Your task to perform on an android device: open app "Messages" (install if not already installed) and go to login screen Image 0: 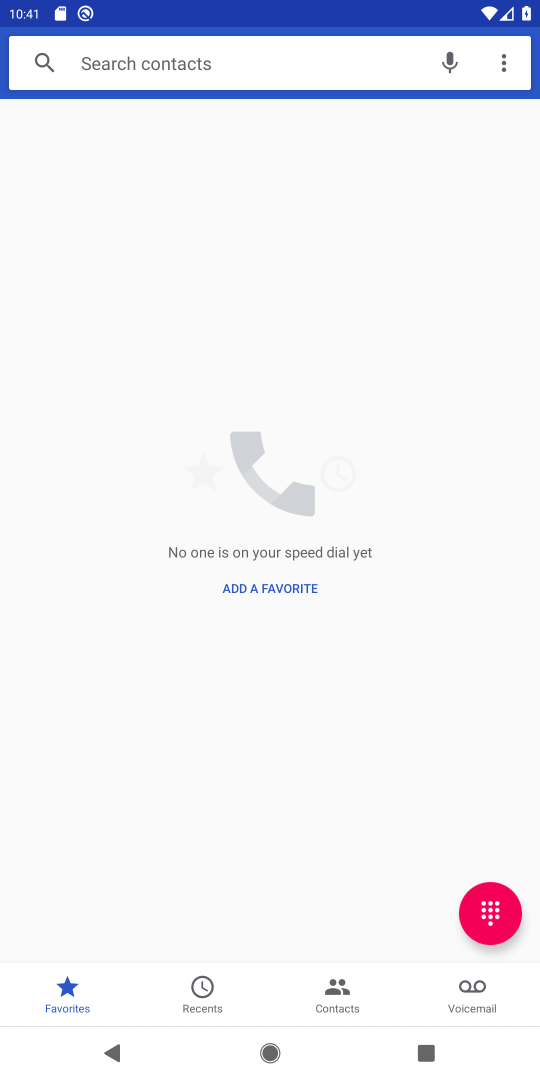
Step 0: press home button
Your task to perform on an android device: open app "Messages" (install if not already installed) and go to login screen Image 1: 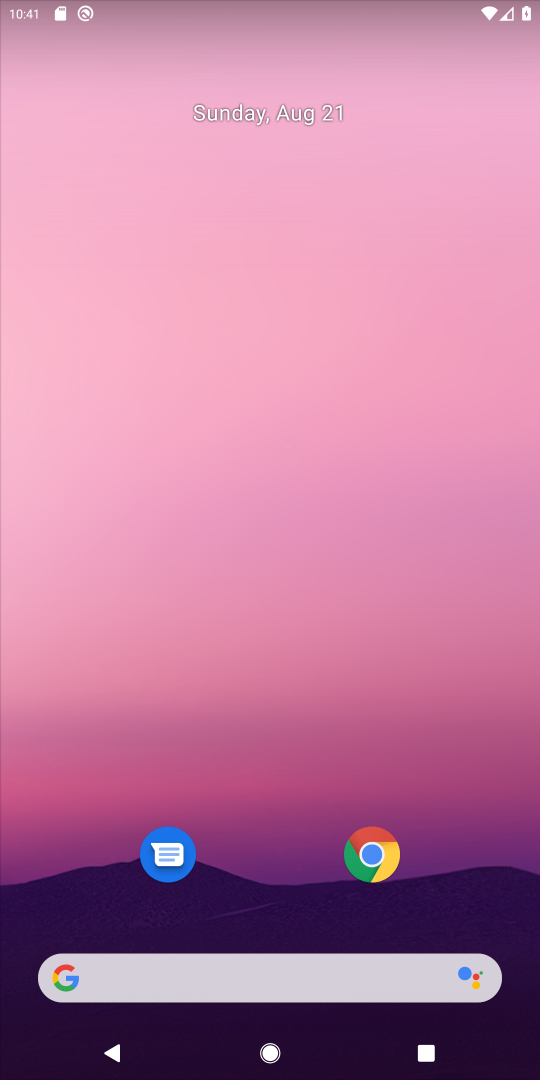
Step 1: click (177, 837)
Your task to perform on an android device: open app "Messages" (install if not already installed) and go to login screen Image 2: 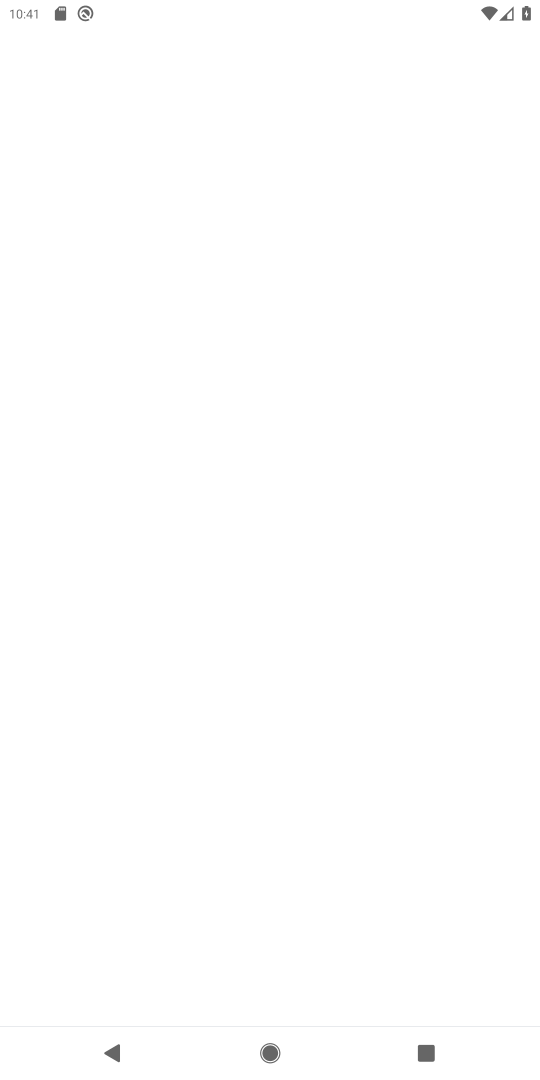
Step 2: task complete